Your task to perform on an android device: all mails in gmail Image 0: 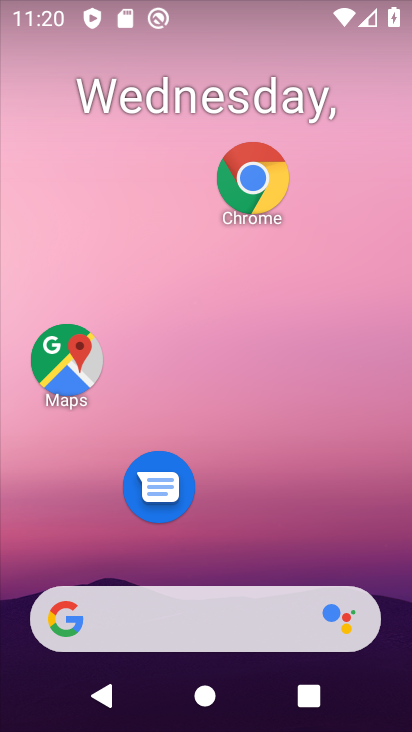
Step 0: drag from (303, 536) to (221, 25)
Your task to perform on an android device: all mails in gmail Image 1: 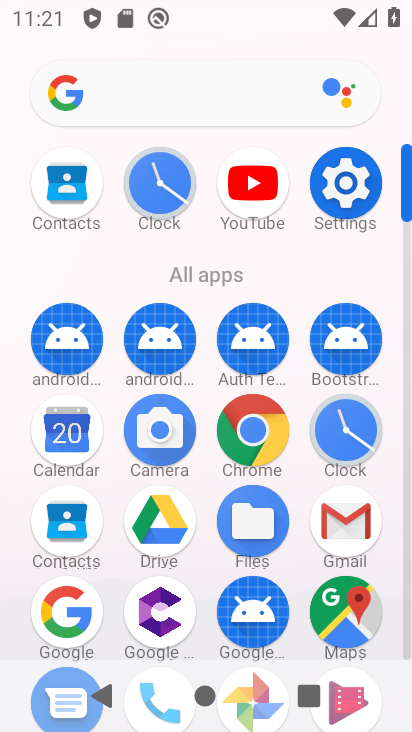
Step 1: click (346, 527)
Your task to perform on an android device: all mails in gmail Image 2: 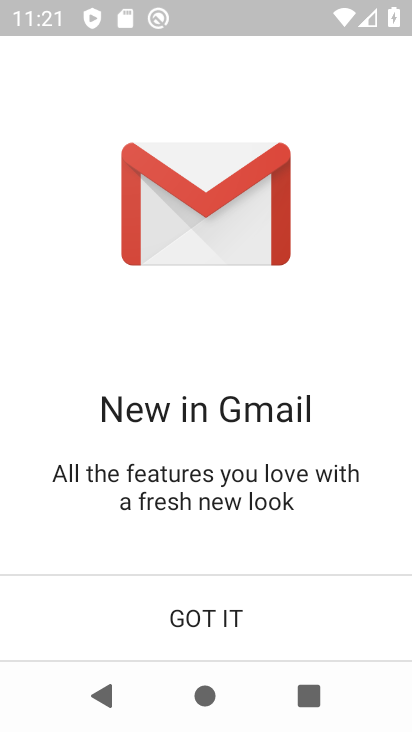
Step 2: click (231, 619)
Your task to perform on an android device: all mails in gmail Image 3: 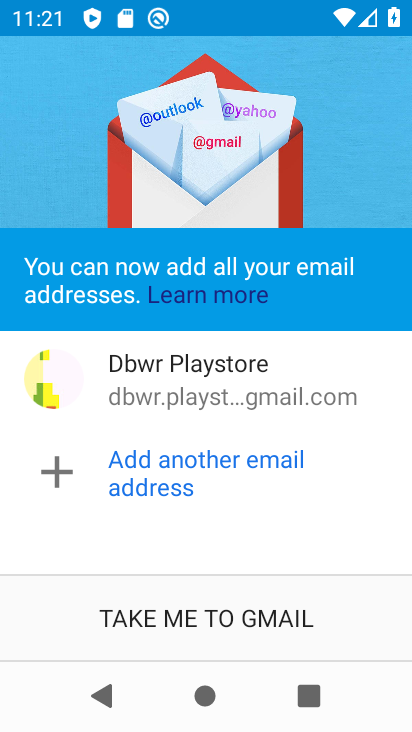
Step 3: click (212, 603)
Your task to perform on an android device: all mails in gmail Image 4: 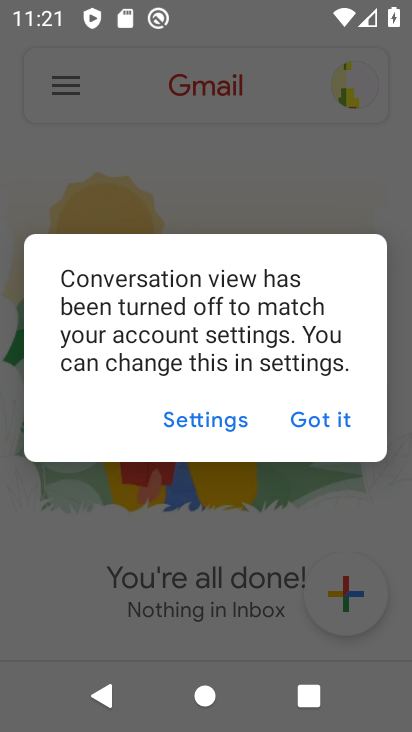
Step 4: click (333, 415)
Your task to perform on an android device: all mails in gmail Image 5: 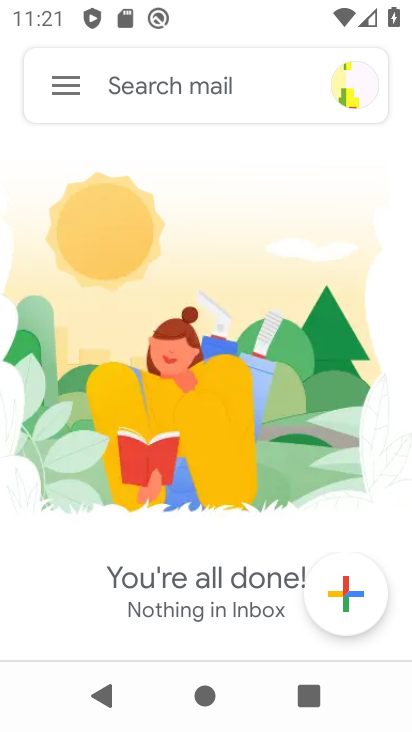
Step 5: click (65, 99)
Your task to perform on an android device: all mails in gmail Image 6: 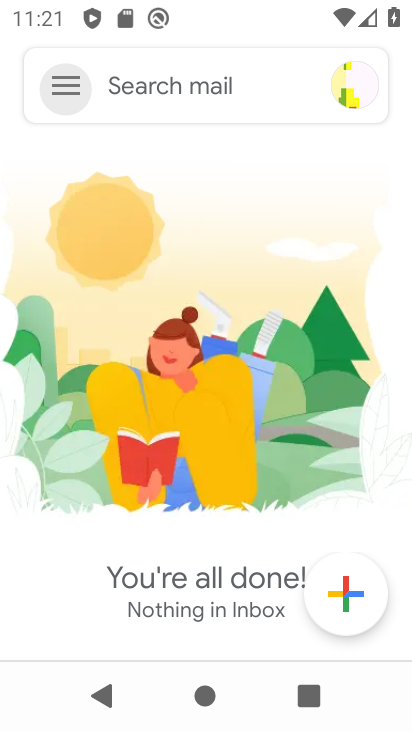
Step 6: click (68, 87)
Your task to perform on an android device: all mails in gmail Image 7: 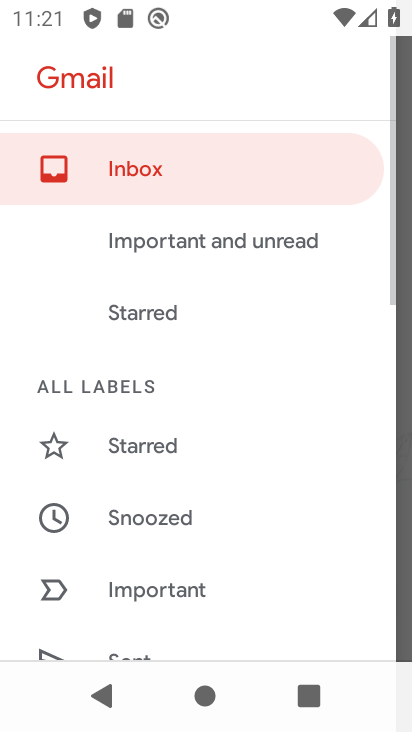
Step 7: drag from (172, 504) to (170, 90)
Your task to perform on an android device: all mails in gmail Image 8: 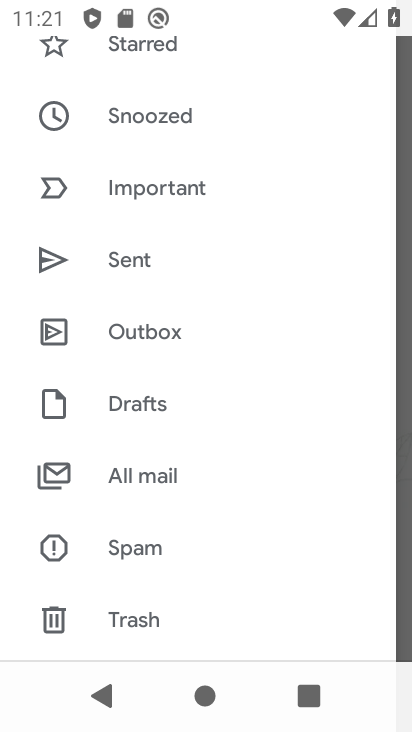
Step 8: click (149, 472)
Your task to perform on an android device: all mails in gmail Image 9: 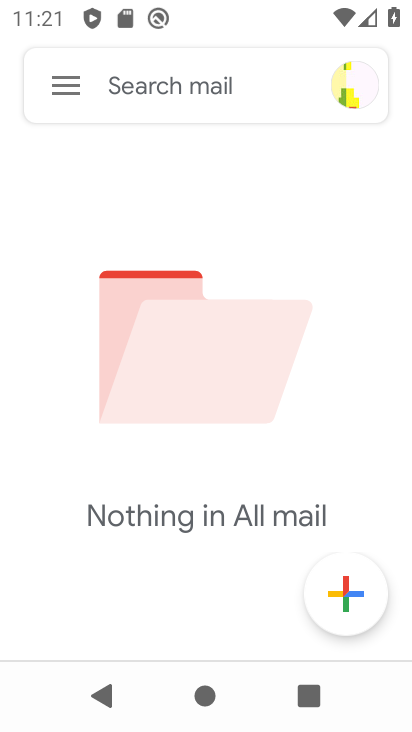
Step 9: task complete